Your task to perform on an android device: make emails show in primary in the gmail app Image 0: 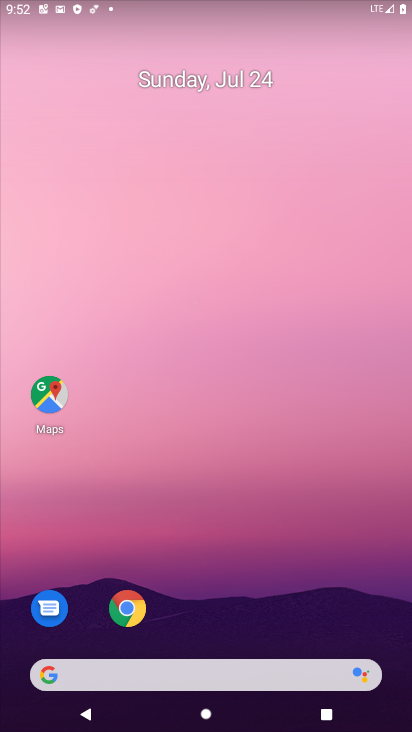
Step 0: press home button
Your task to perform on an android device: make emails show in primary in the gmail app Image 1: 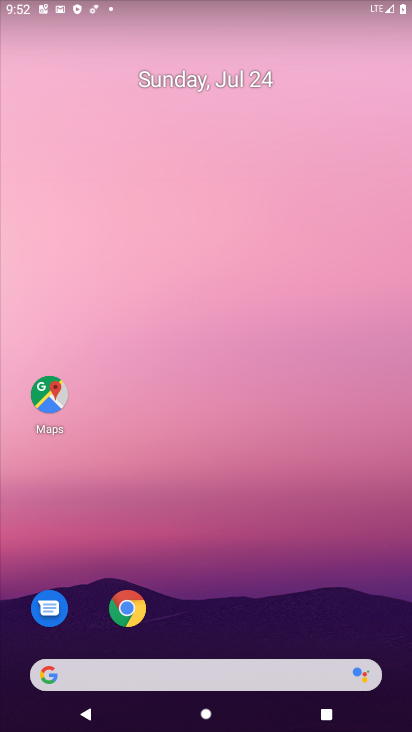
Step 1: drag from (206, 641) to (222, 42)
Your task to perform on an android device: make emails show in primary in the gmail app Image 2: 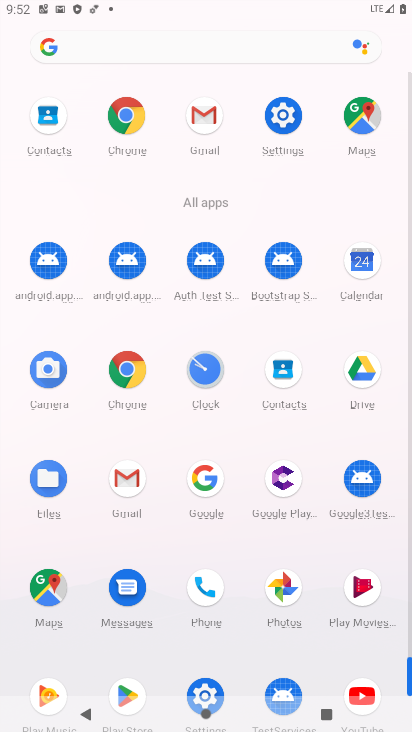
Step 2: click (125, 472)
Your task to perform on an android device: make emails show in primary in the gmail app Image 3: 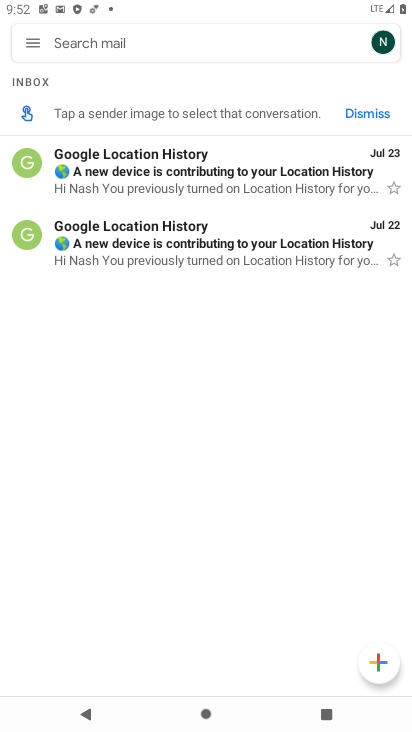
Step 3: click (36, 41)
Your task to perform on an android device: make emails show in primary in the gmail app Image 4: 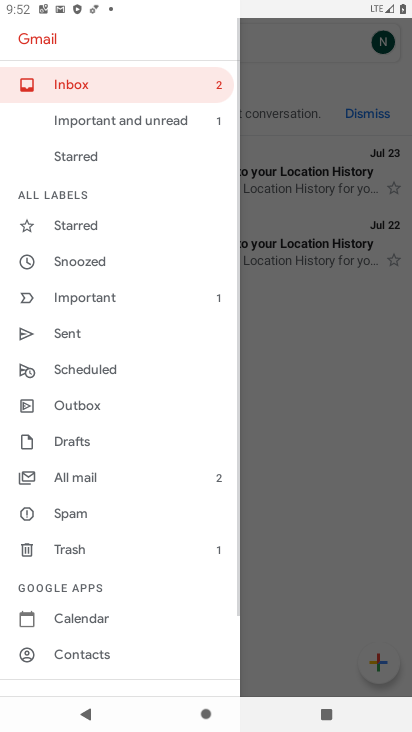
Step 4: drag from (105, 652) to (181, 136)
Your task to perform on an android device: make emails show in primary in the gmail app Image 5: 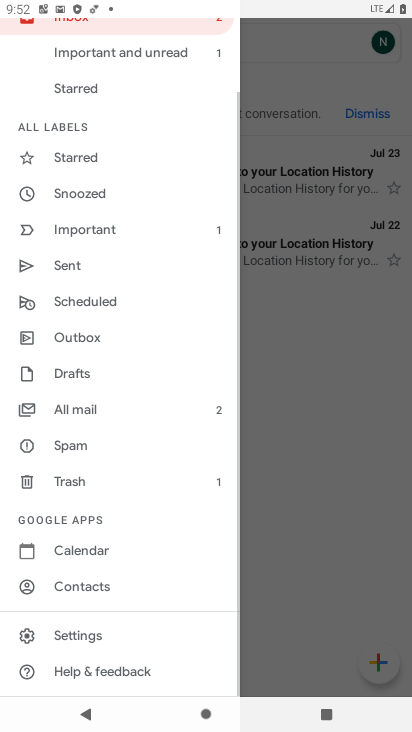
Step 5: click (114, 634)
Your task to perform on an android device: make emails show in primary in the gmail app Image 6: 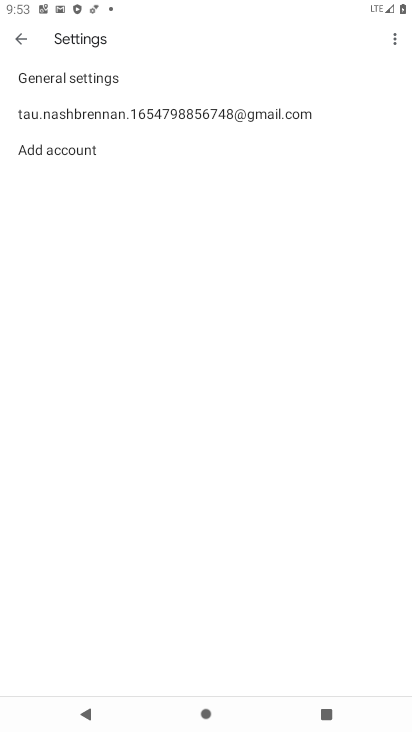
Step 6: click (104, 110)
Your task to perform on an android device: make emails show in primary in the gmail app Image 7: 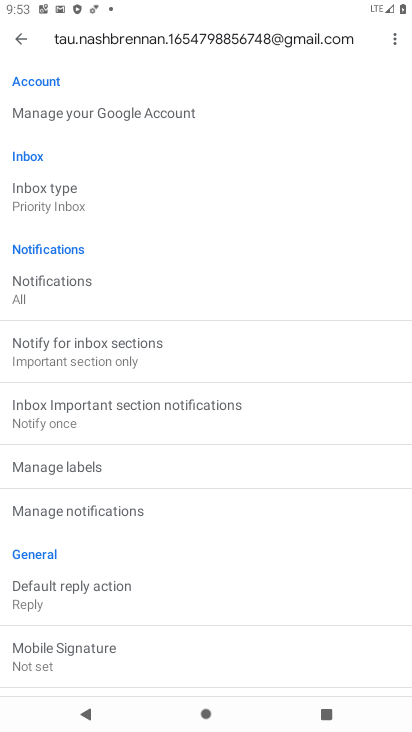
Step 7: click (85, 190)
Your task to perform on an android device: make emails show in primary in the gmail app Image 8: 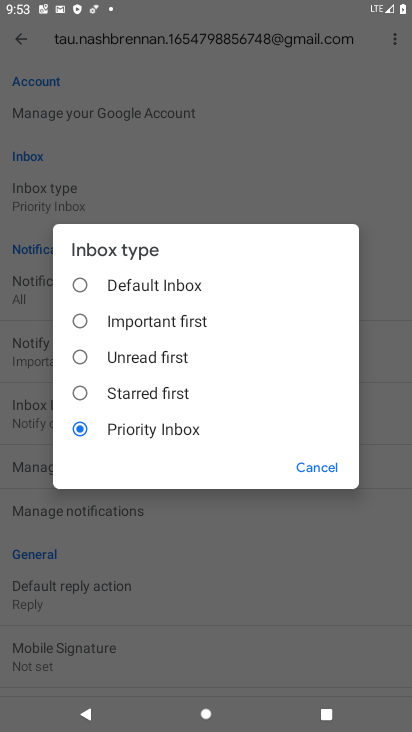
Step 8: click (75, 282)
Your task to perform on an android device: make emails show in primary in the gmail app Image 9: 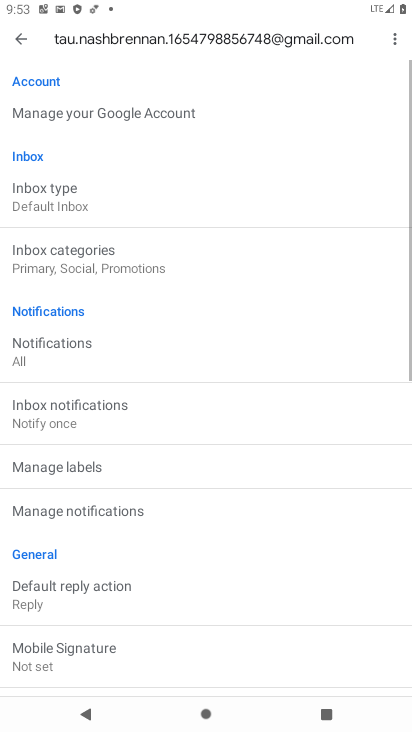
Step 9: task complete